Your task to perform on an android device: What is the recent news? Image 0: 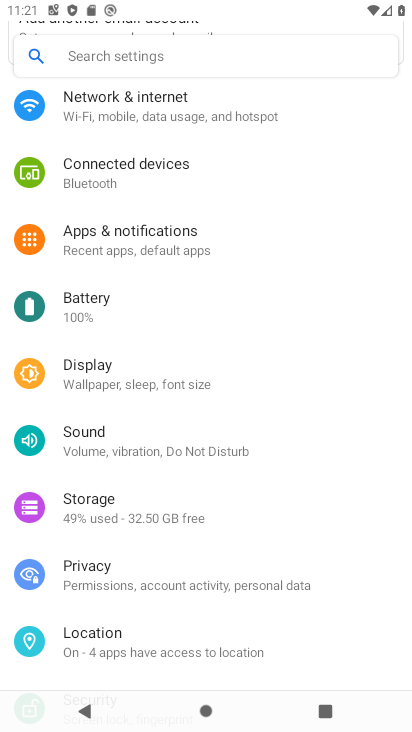
Step 0: press home button
Your task to perform on an android device: What is the recent news? Image 1: 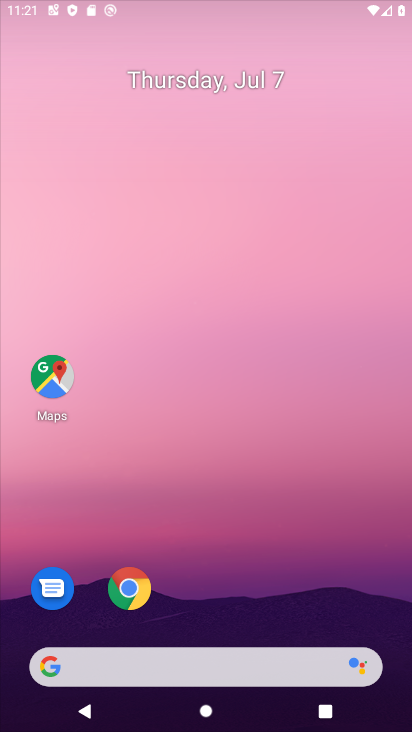
Step 1: drag from (219, 582) to (244, 69)
Your task to perform on an android device: What is the recent news? Image 2: 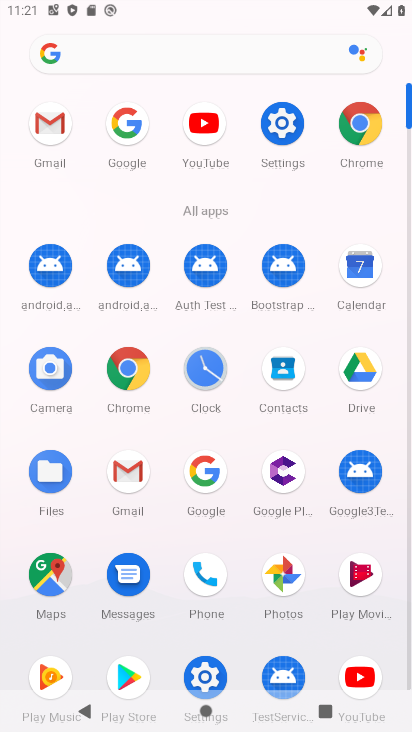
Step 2: click (122, 118)
Your task to perform on an android device: What is the recent news? Image 3: 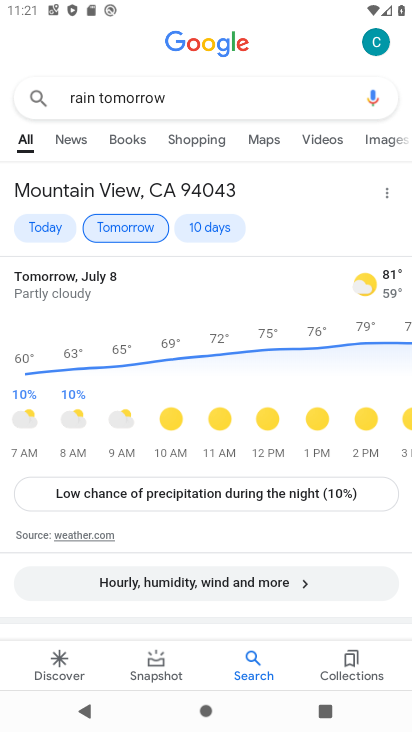
Step 3: click (233, 100)
Your task to perform on an android device: What is the recent news? Image 4: 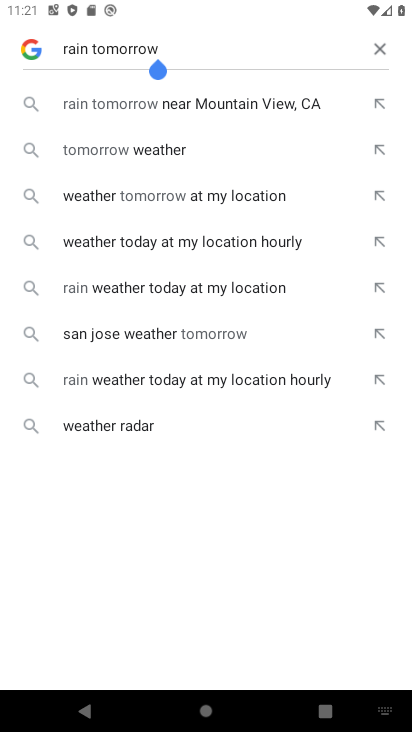
Step 4: click (379, 45)
Your task to perform on an android device: What is the recent news? Image 5: 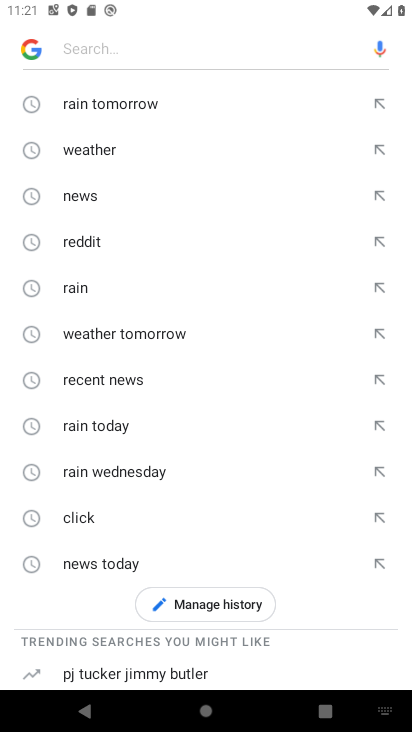
Step 5: type "recent news"
Your task to perform on an android device: What is the recent news? Image 6: 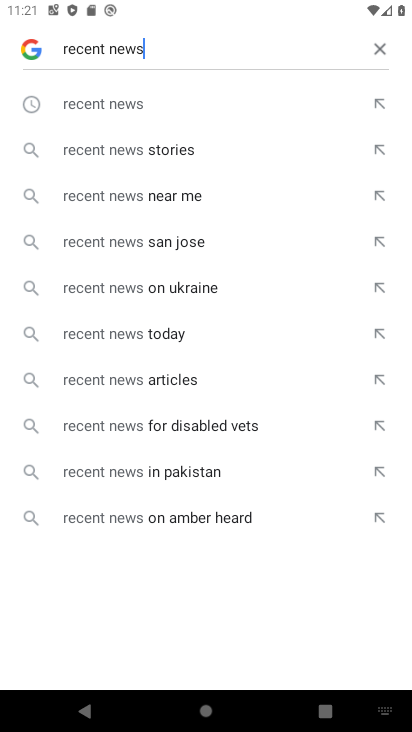
Step 6: click (124, 116)
Your task to perform on an android device: What is the recent news? Image 7: 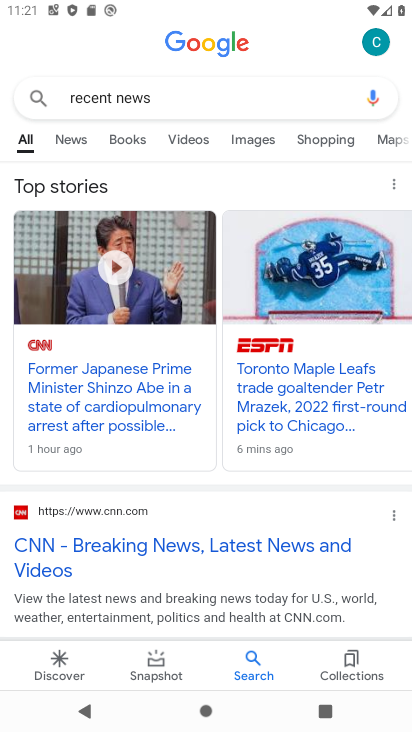
Step 7: task complete